Your task to perform on an android device: turn off translation in the chrome app Image 0: 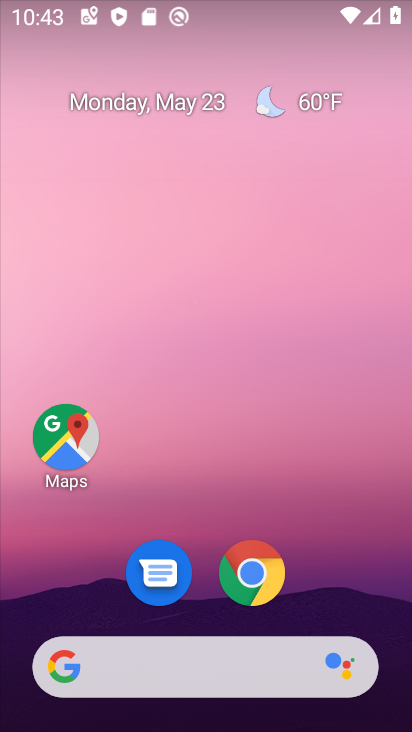
Step 0: drag from (347, 583) to (271, 13)
Your task to perform on an android device: turn off translation in the chrome app Image 1: 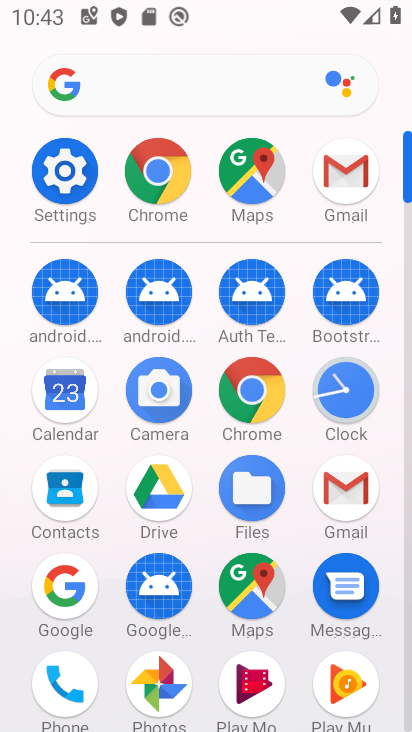
Step 1: click (248, 387)
Your task to perform on an android device: turn off translation in the chrome app Image 2: 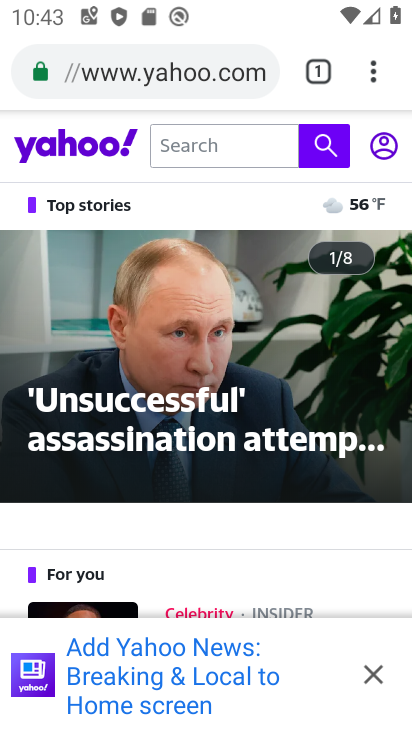
Step 2: drag from (376, 68) to (175, 558)
Your task to perform on an android device: turn off translation in the chrome app Image 3: 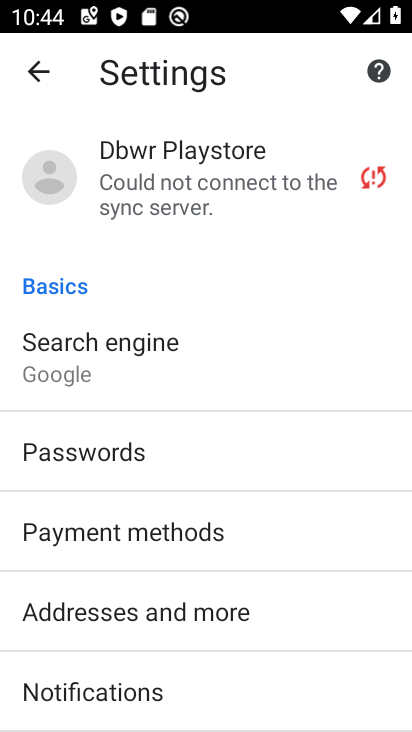
Step 3: drag from (238, 552) to (234, 89)
Your task to perform on an android device: turn off translation in the chrome app Image 4: 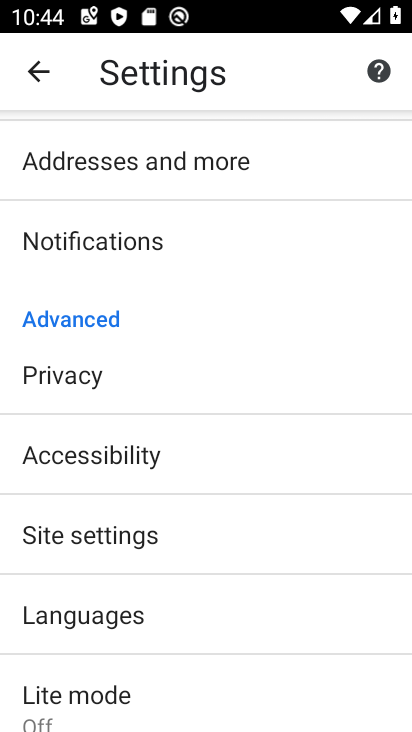
Step 4: drag from (277, 520) to (281, 169)
Your task to perform on an android device: turn off translation in the chrome app Image 5: 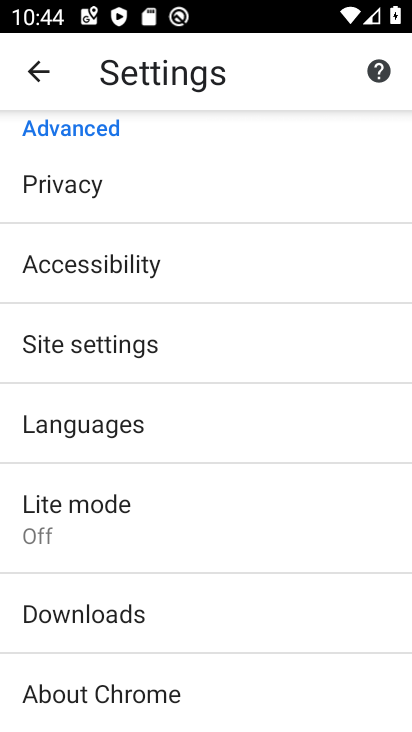
Step 5: click (169, 427)
Your task to perform on an android device: turn off translation in the chrome app Image 6: 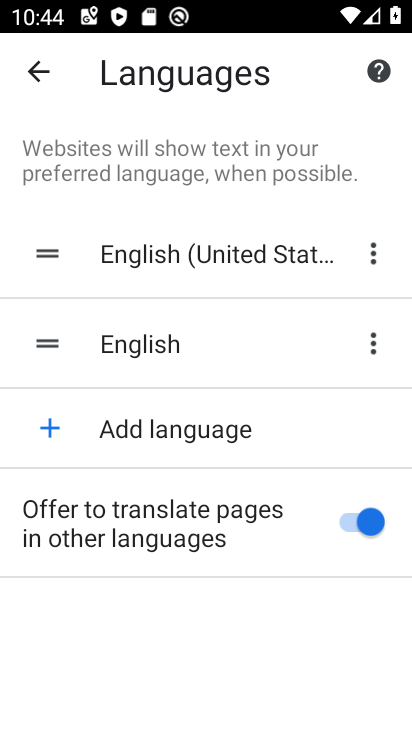
Step 6: click (346, 526)
Your task to perform on an android device: turn off translation in the chrome app Image 7: 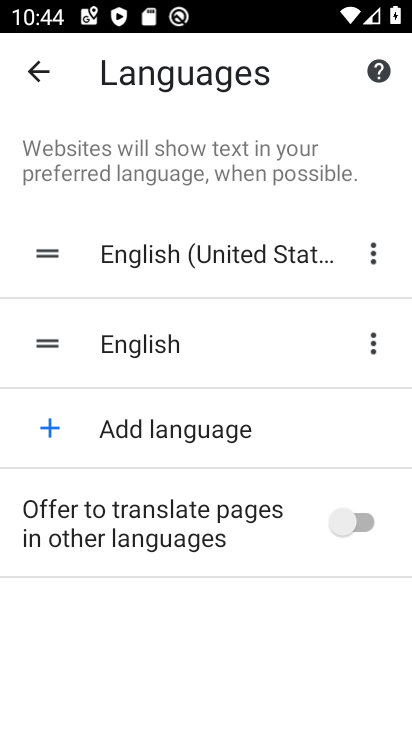
Step 7: task complete